Your task to perform on an android device: Open notification settings Image 0: 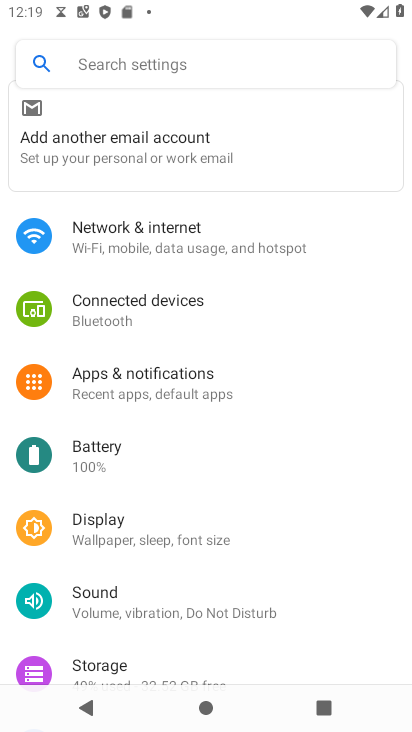
Step 0: click (139, 383)
Your task to perform on an android device: Open notification settings Image 1: 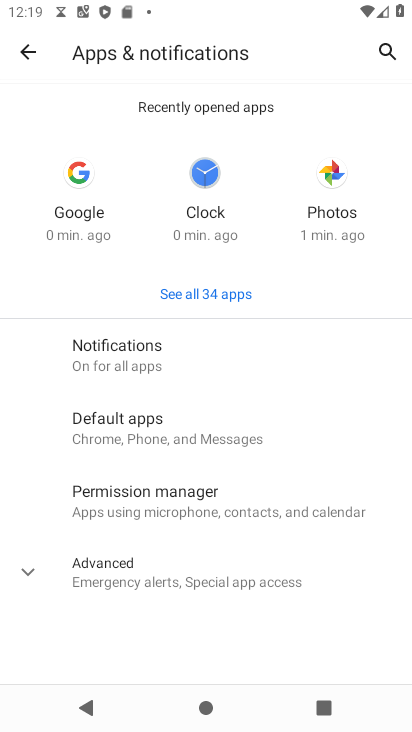
Step 1: task complete